Your task to perform on an android device: open a bookmark in the chrome app Image 0: 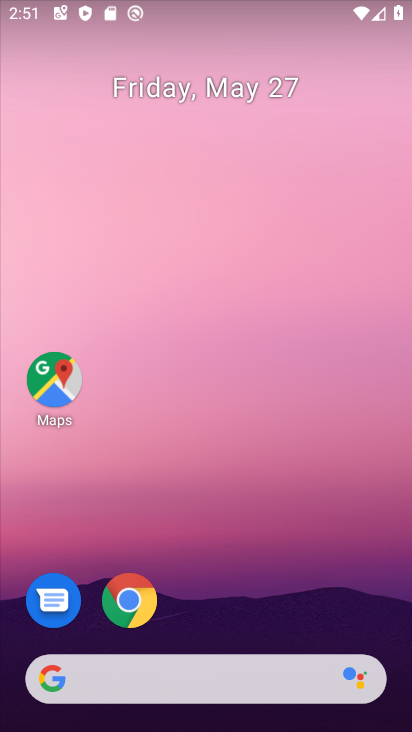
Step 0: click (136, 591)
Your task to perform on an android device: open a bookmark in the chrome app Image 1: 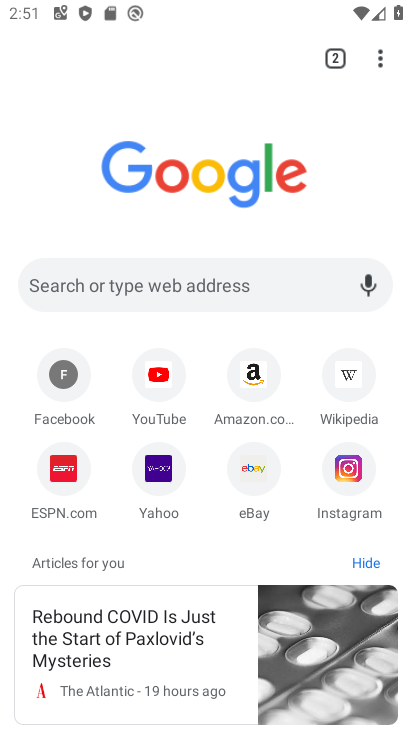
Step 1: click (391, 47)
Your task to perform on an android device: open a bookmark in the chrome app Image 2: 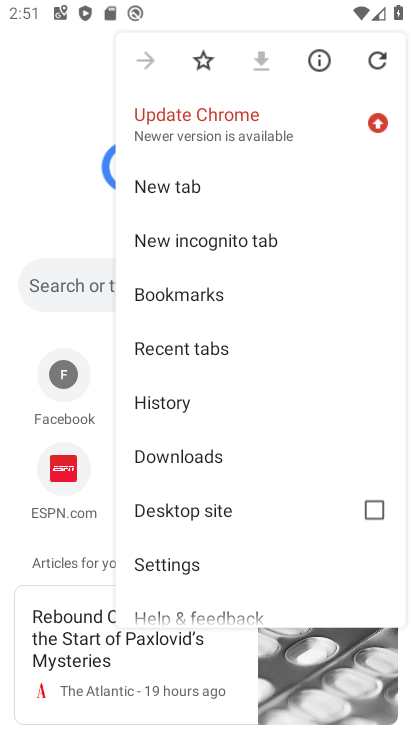
Step 2: click (242, 292)
Your task to perform on an android device: open a bookmark in the chrome app Image 3: 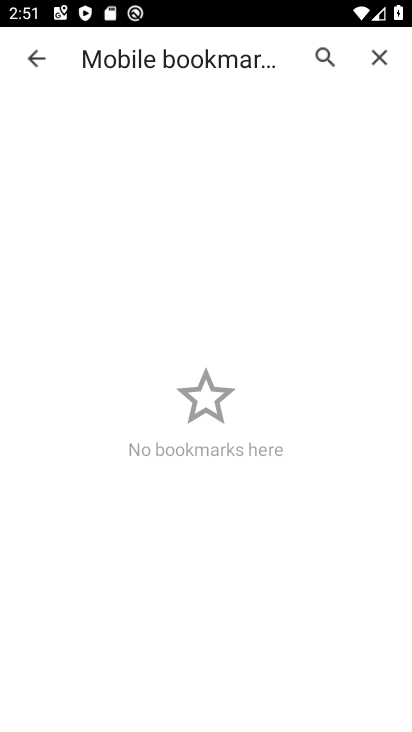
Step 3: task complete